Your task to perform on an android device: set an alarm Image 0: 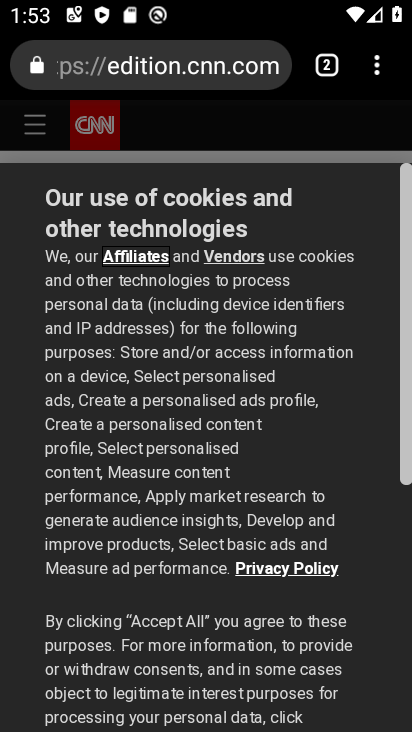
Step 0: drag from (185, 615) to (216, 311)
Your task to perform on an android device: set an alarm Image 1: 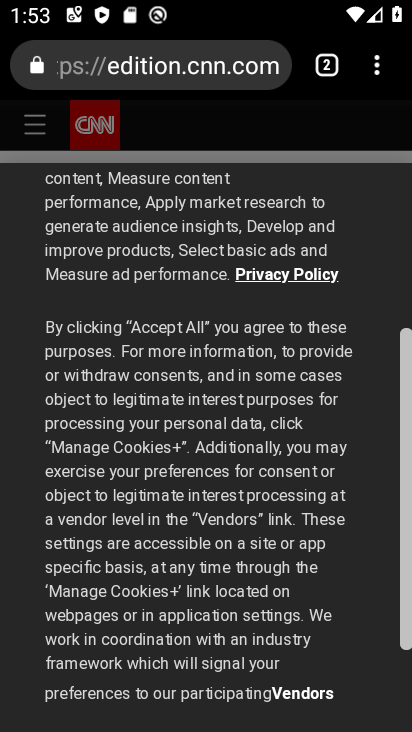
Step 1: press home button
Your task to perform on an android device: set an alarm Image 2: 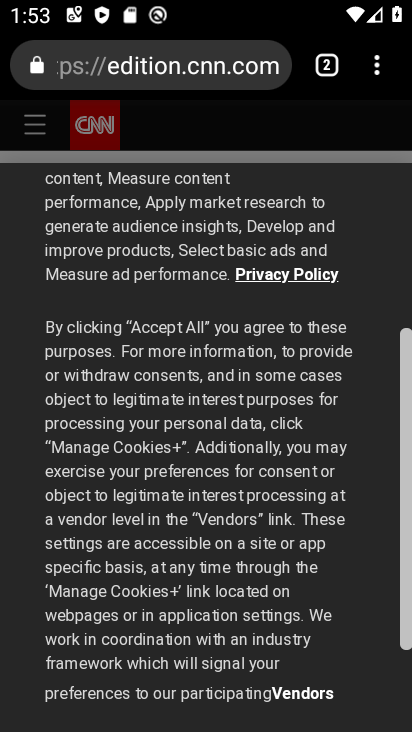
Step 2: press home button
Your task to perform on an android device: set an alarm Image 3: 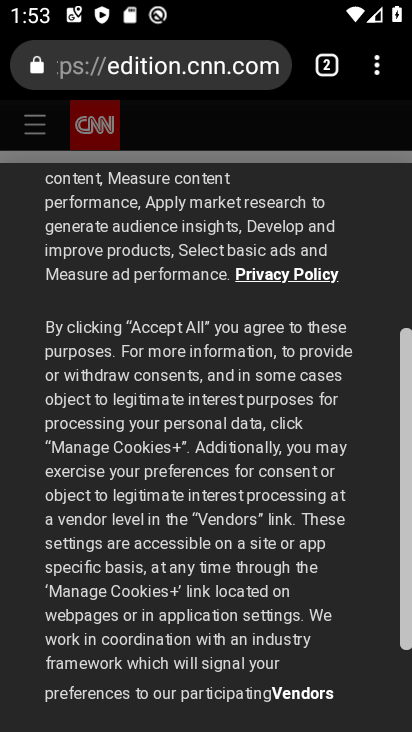
Step 3: click (226, 300)
Your task to perform on an android device: set an alarm Image 4: 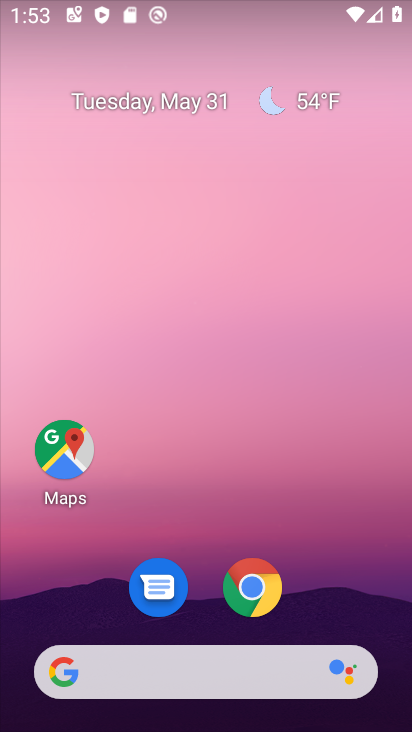
Step 4: drag from (212, 612) to (227, 289)
Your task to perform on an android device: set an alarm Image 5: 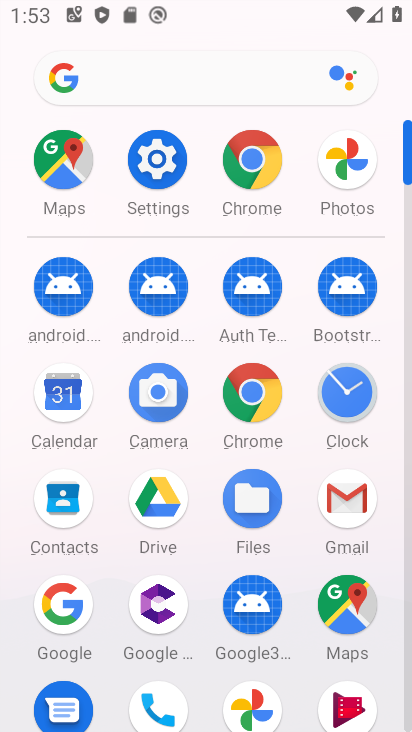
Step 5: click (335, 395)
Your task to perform on an android device: set an alarm Image 6: 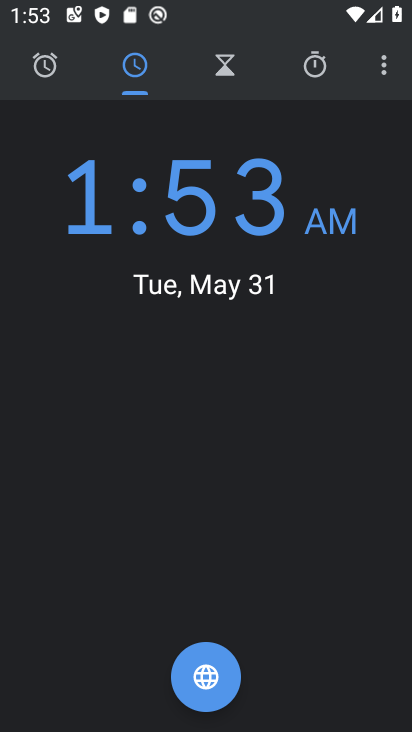
Step 6: click (44, 48)
Your task to perform on an android device: set an alarm Image 7: 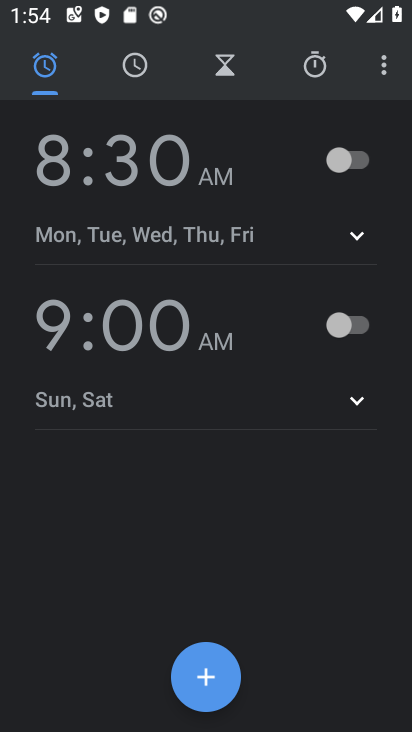
Step 7: click (330, 158)
Your task to perform on an android device: set an alarm Image 8: 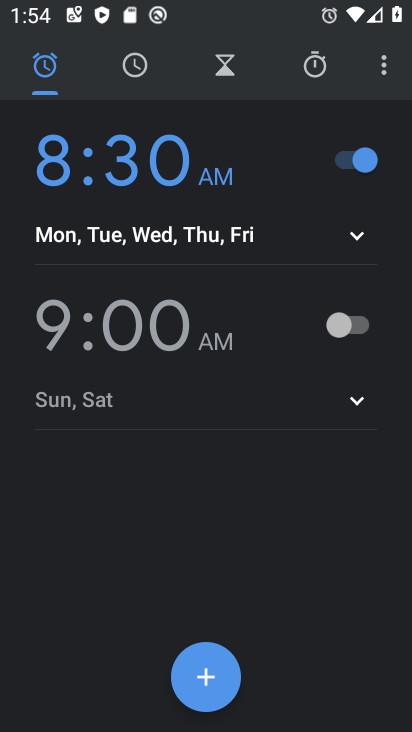
Step 8: task complete